Your task to perform on an android device: Open the phone app and click the voicemail tab. Image 0: 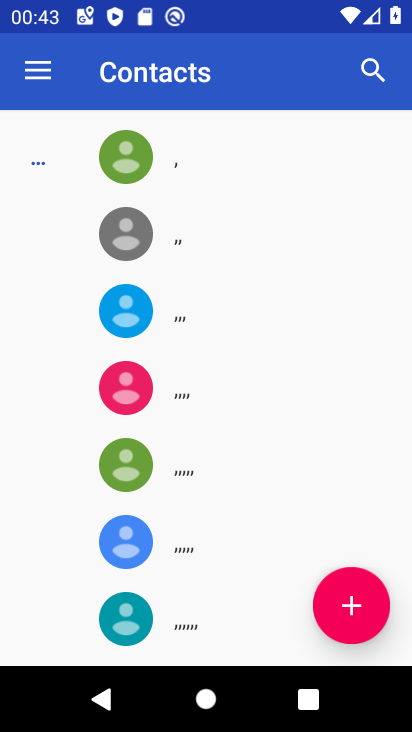
Step 0: press home button
Your task to perform on an android device: Open the phone app and click the voicemail tab. Image 1: 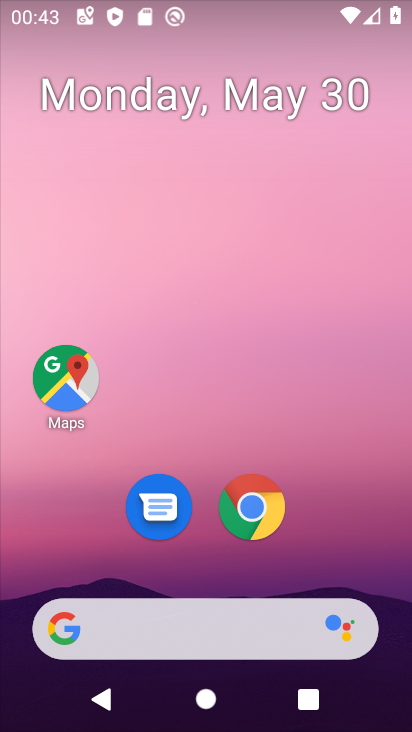
Step 1: drag from (262, 564) to (245, 175)
Your task to perform on an android device: Open the phone app and click the voicemail tab. Image 2: 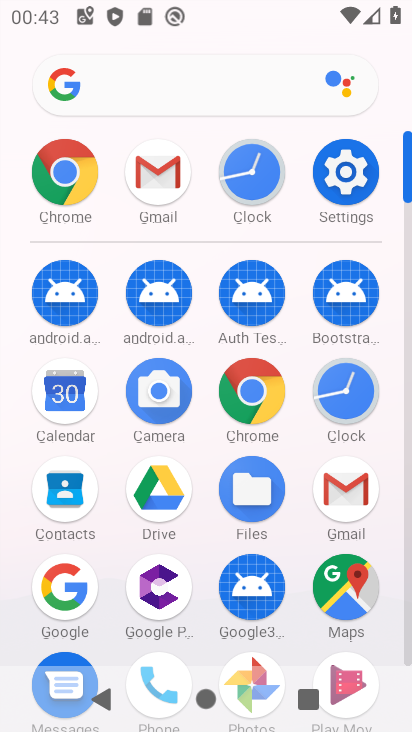
Step 2: drag from (295, 605) to (280, 257)
Your task to perform on an android device: Open the phone app and click the voicemail tab. Image 3: 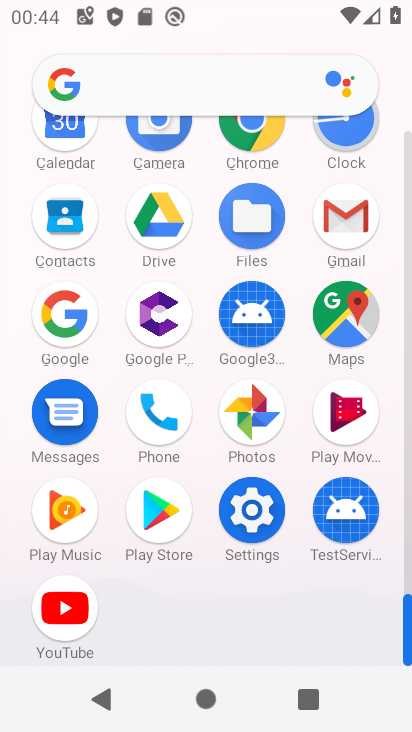
Step 3: click (162, 401)
Your task to perform on an android device: Open the phone app and click the voicemail tab. Image 4: 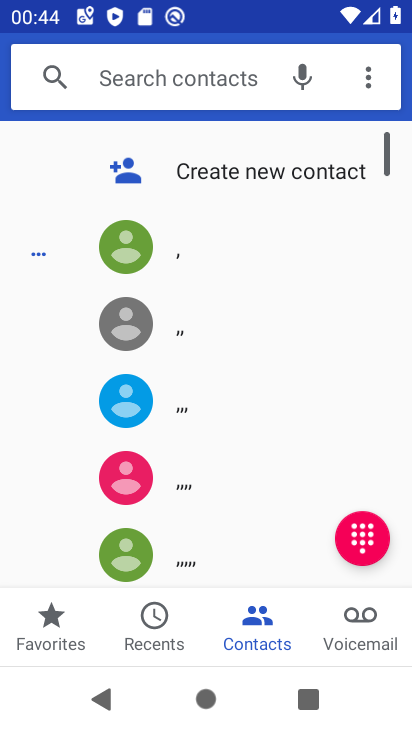
Step 4: click (375, 612)
Your task to perform on an android device: Open the phone app and click the voicemail tab. Image 5: 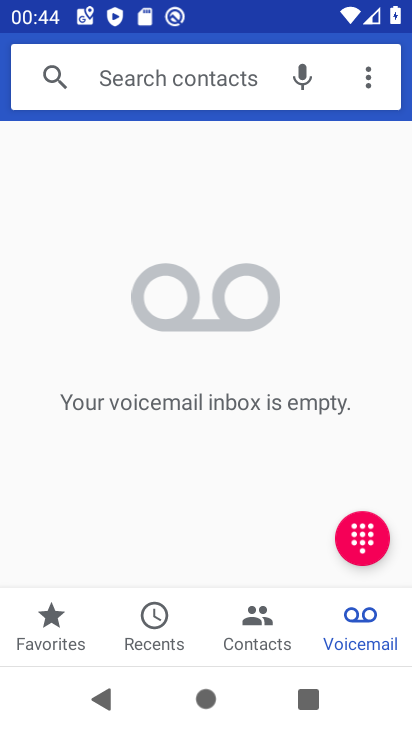
Step 5: task complete